Your task to perform on an android device: snooze an email in the gmail app Image 0: 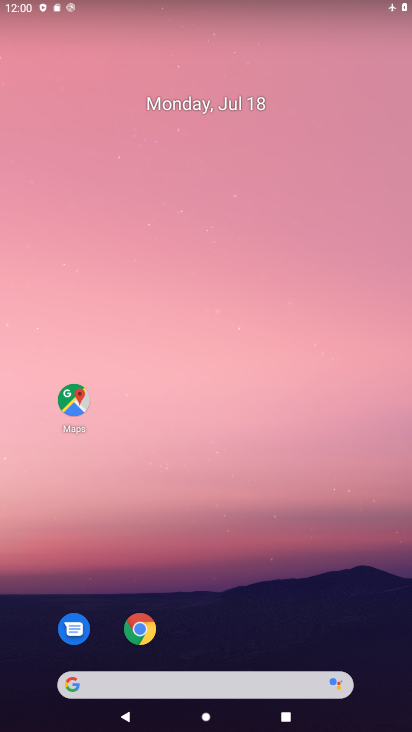
Step 0: press home button
Your task to perform on an android device: snooze an email in the gmail app Image 1: 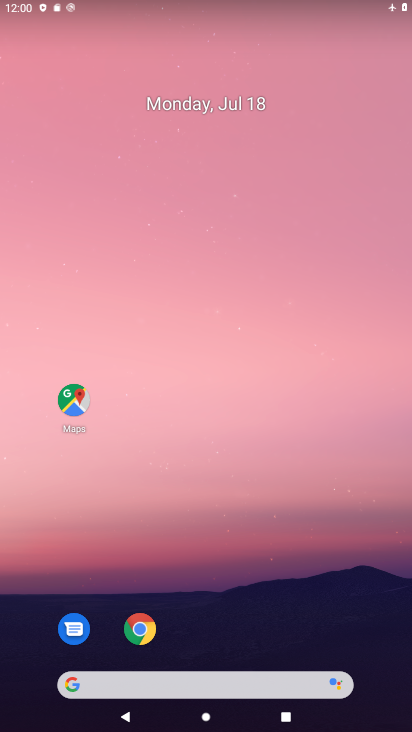
Step 1: drag from (213, 655) to (221, 0)
Your task to perform on an android device: snooze an email in the gmail app Image 2: 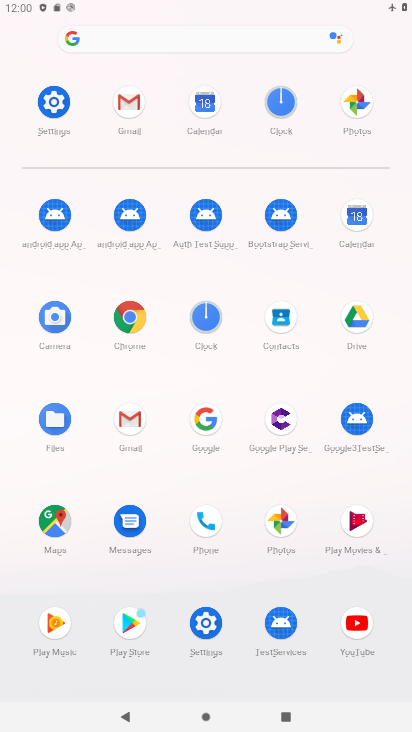
Step 2: click (125, 96)
Your task to perform on an android device: snooze an email in the gmail app Image 3: 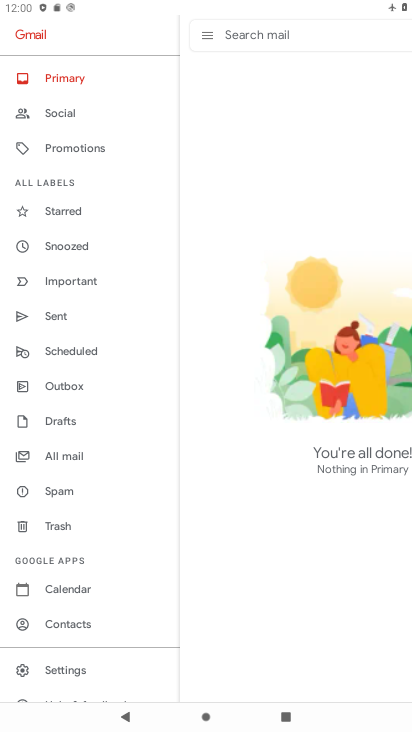
Step 3: task complete